Your task to perform on an android device: search for starred emails in the gmail app Image 0: 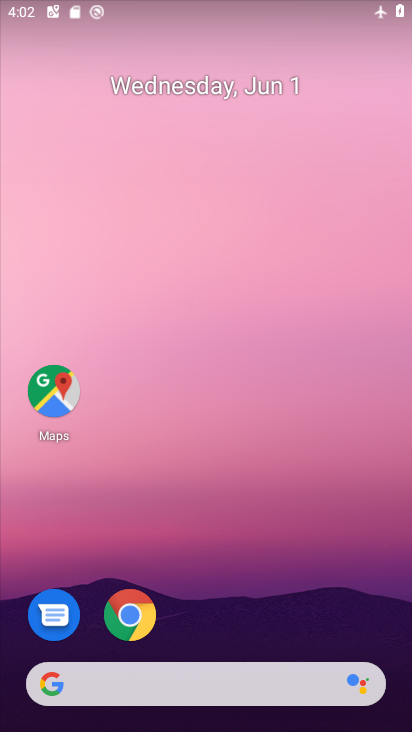
Step 0: drag from (320, 576) to (290, 144)
Your task to perform on an android device: search for starred emails in the gmail app Image 1: 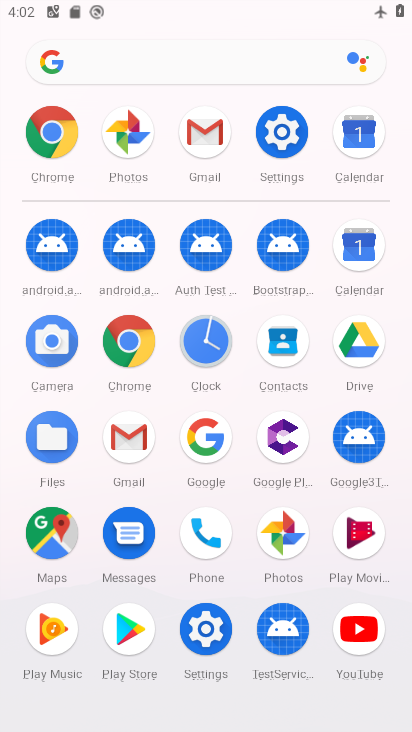
Step 1: click (210, 139)
Your task to perform on an android device: search for starred emails in the gmail app Image 2: 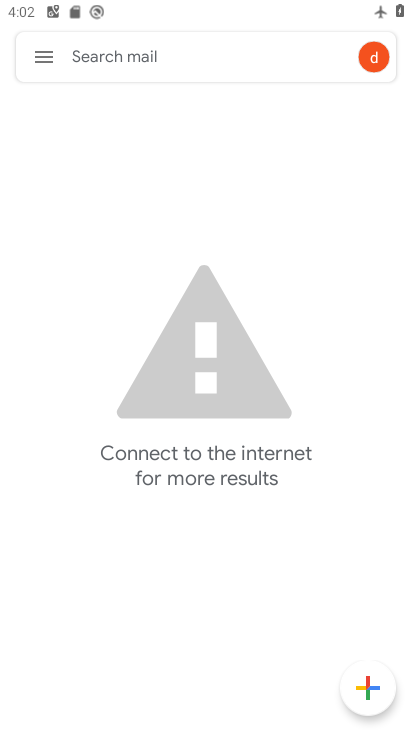
Step 2: click (52, 53)
Your task to perform on an android device: search for starred emails in the gmail app Image 3: 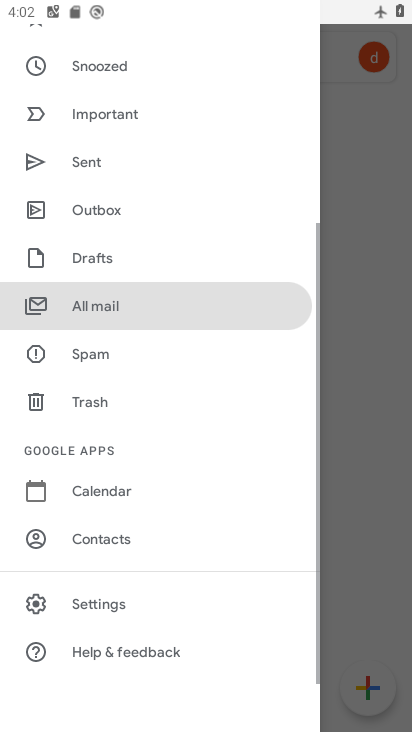
Step 3: drag from (127, 167) to (156, 434)
Your task to perform on an android device: search for starred emails in the gmail app Image 4: 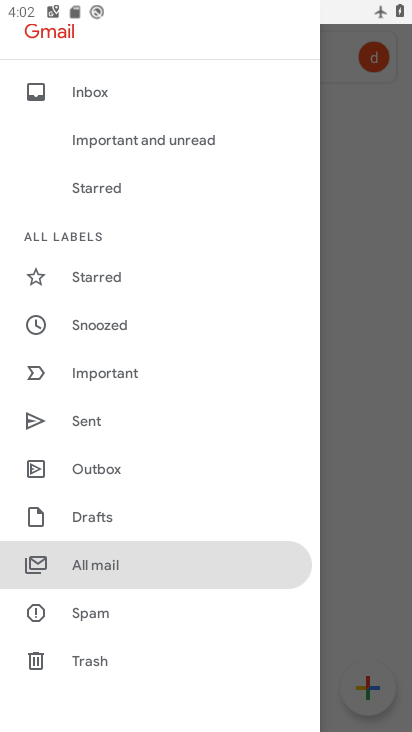
Step 4: click (106, 282)
Your task to perform on an android device: search for starred emails in the gmail app Image 5: 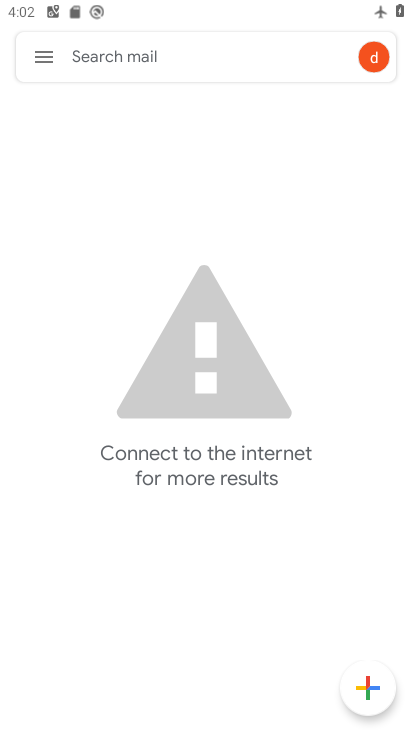
Step 5: task complete